Your task to perform on an android device: Open Youtube and go to "Your channel" Image 0: 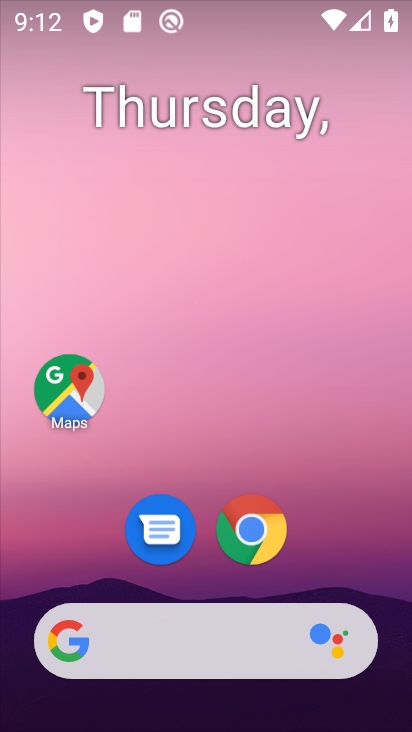
Step 0: drag from (346, 551) to (287, 202)
Your task to perform on an android device: Open Youtube and go to "Your channel" Image 1: 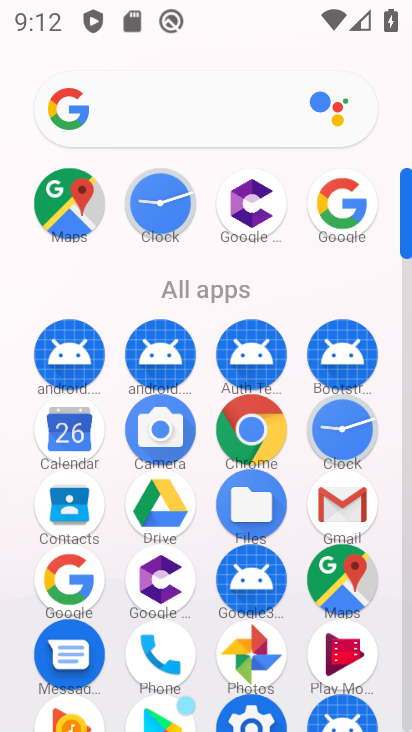
Step 1: drag from (301, 493) to (294, 255)
Your task to perform on an android device: Open Youtube and go to "Your channel" Image 2: 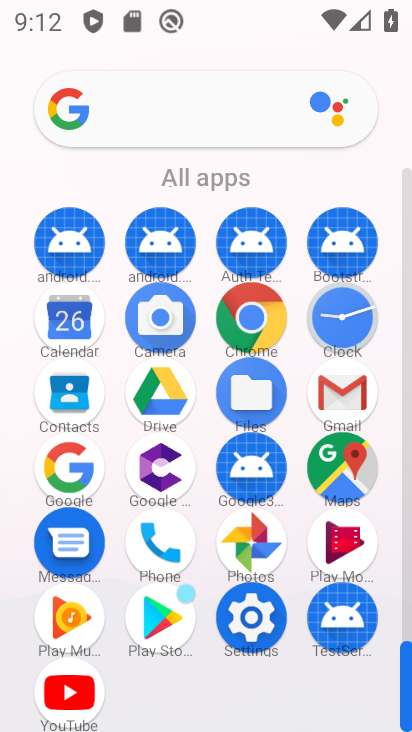
Step 2: click (69, 692)
Your task to perform on an android device: Open Youtube and go to "Your channel" Image 3: 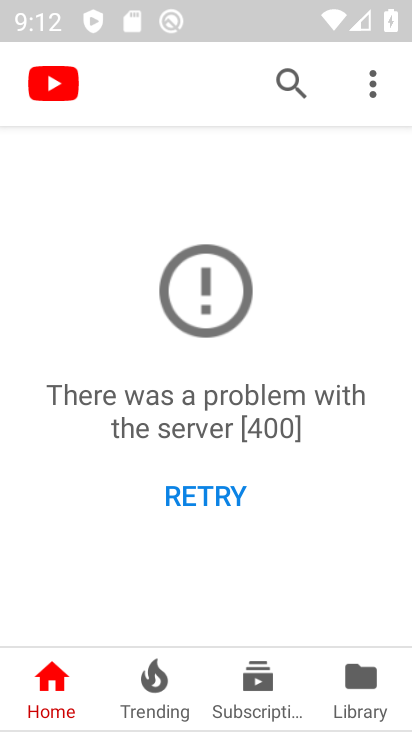
Step 3: click (186, 495)
Your task to perform on an android device: Open Youtube and go to "Your channel" Image 4: 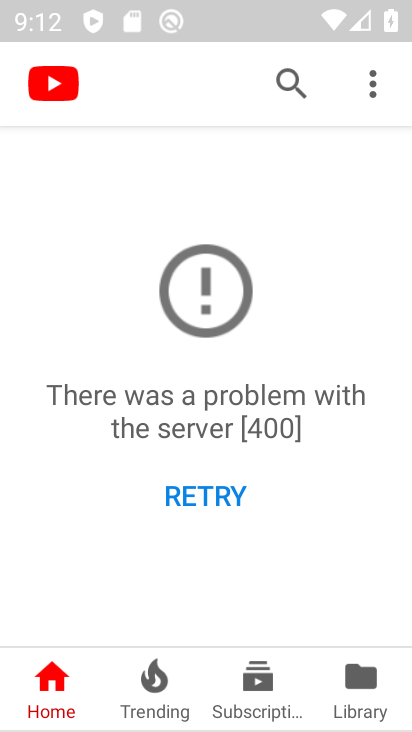
Step 4: click (186, 495)
Your task to perform on an android device: Open Youtube and go to "Your channel" Image 5: 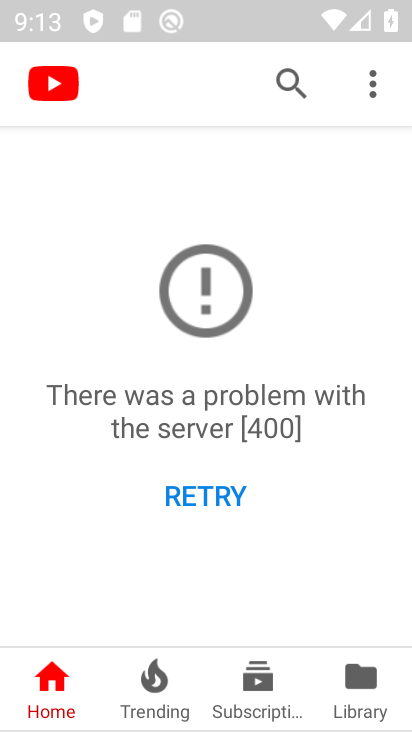
Step 5: click (186, 495)
Your task to perform on an android device: Open Youtube and go to "Your channel" Image 6: 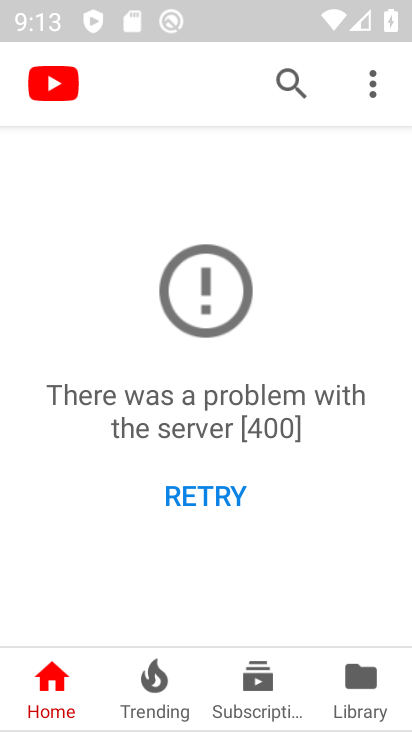
Step 6: task complete